Your task to perform on an android device: check storage Image 0: 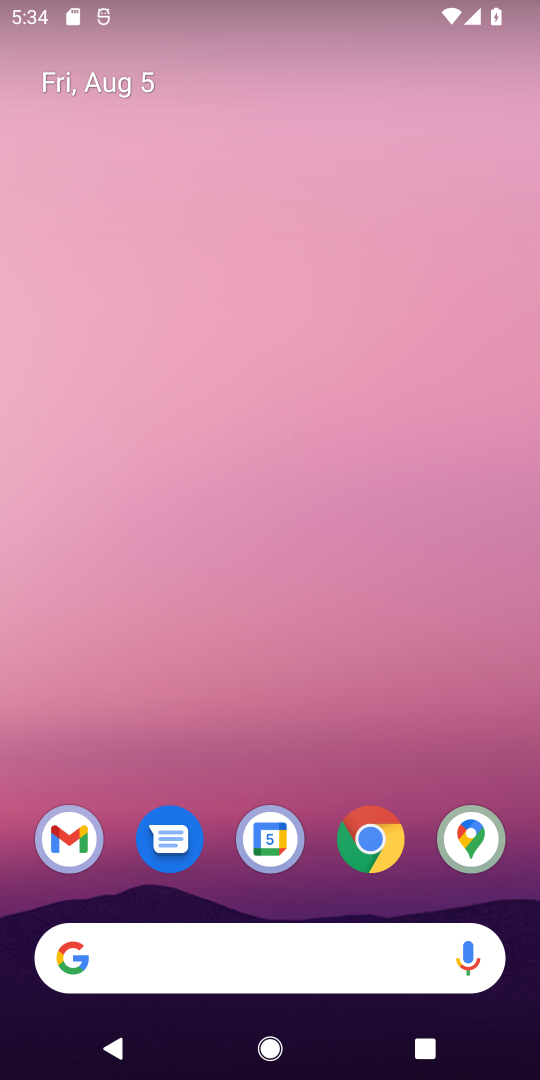
Step 0: drag from (296, 708) to (292, 2)
Your task to perform on an android device: check storage Image 1: 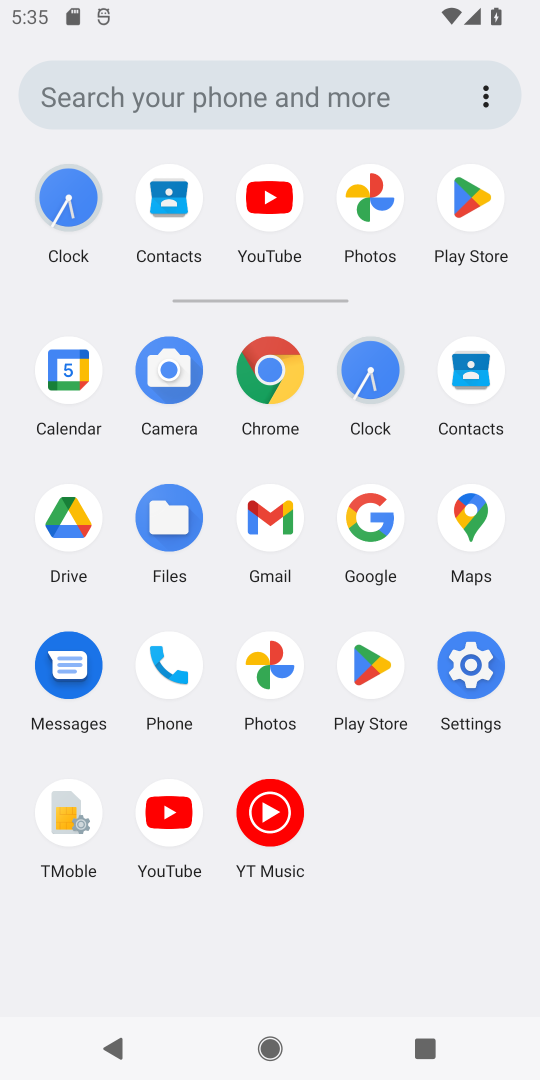
Step 1: click (446, 652)
Your task to perform on an android device: check storage Image 2: 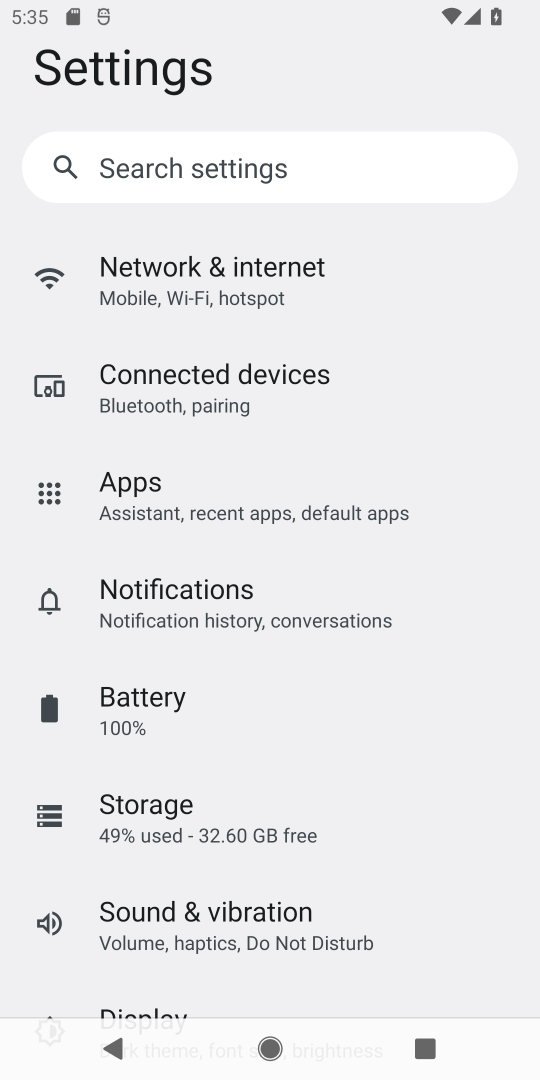
Step 2: click (206, 801)
Your task to perform on an android device: check storage Image 3: 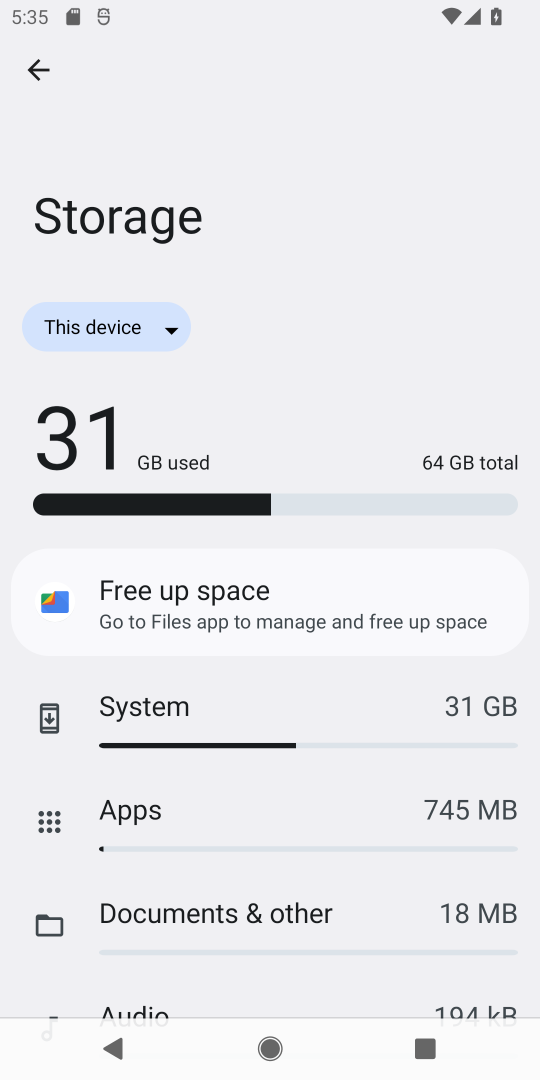
Step 3: task complete